Your task to perform on an android device: turn off data saver in the chrome app Image 0: 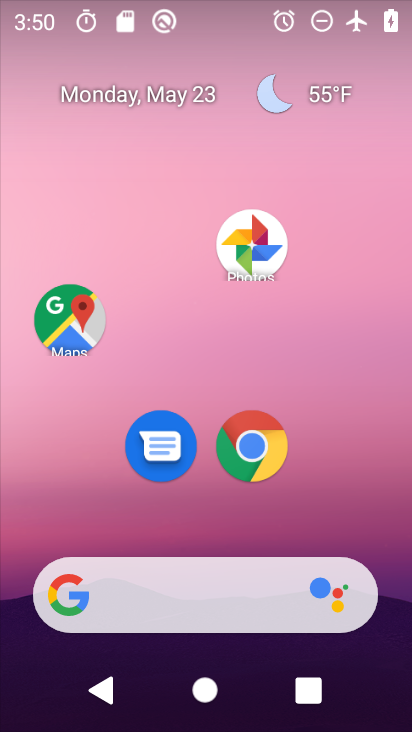
Step 0: click (263, 459)
Your task to perform on an android device: turn off data saver in the chrome app Image 1: 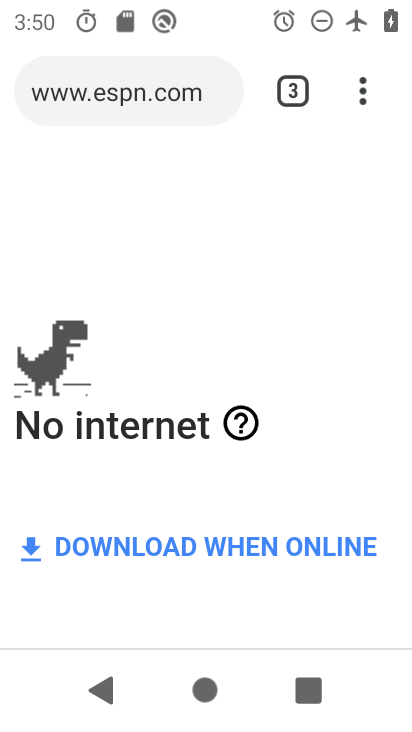
Step 1: click (356, 95)
Your task to perform on an android device: turn off data saver in the chrome app Image 2: 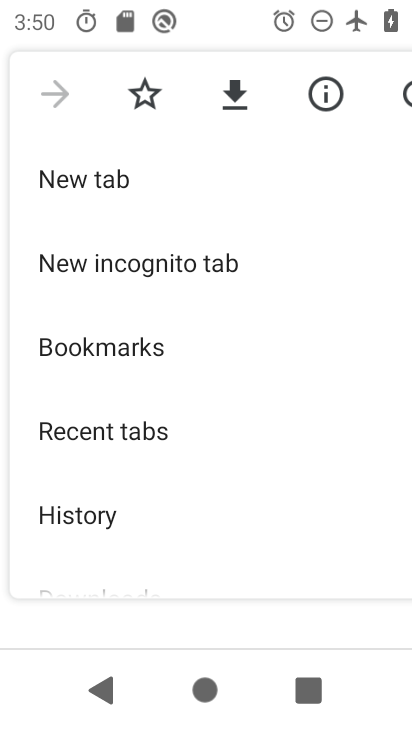
Step 2: drag from (185, 491) to (189, 217)
Your task to perform on an android device: turn off data saver in the chrome app Image 3: 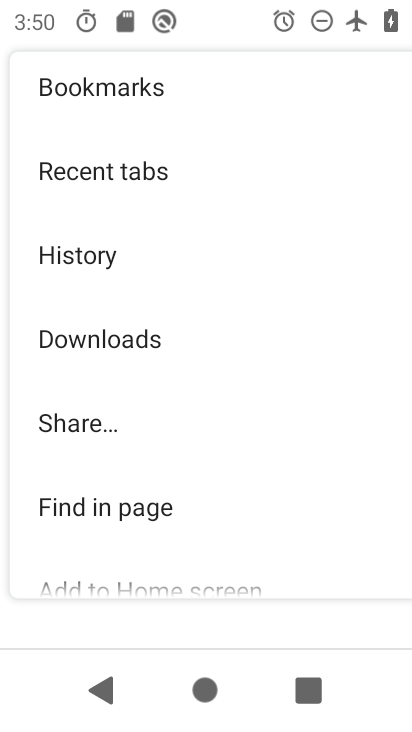
Step 3: drag from (154, 486) to (158, 232)
Your task to perform on an android device: turn off data saver in the chrome app Image 4: 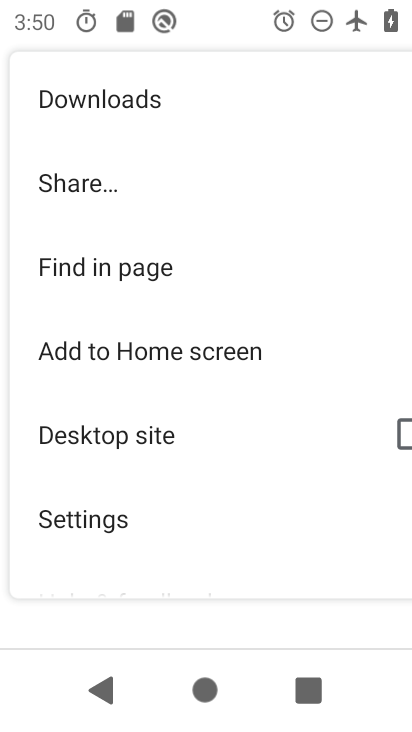
Step 4: click (127, 530)
Your task to perform on an android device: turn off data saver in the chrome app Image 5: 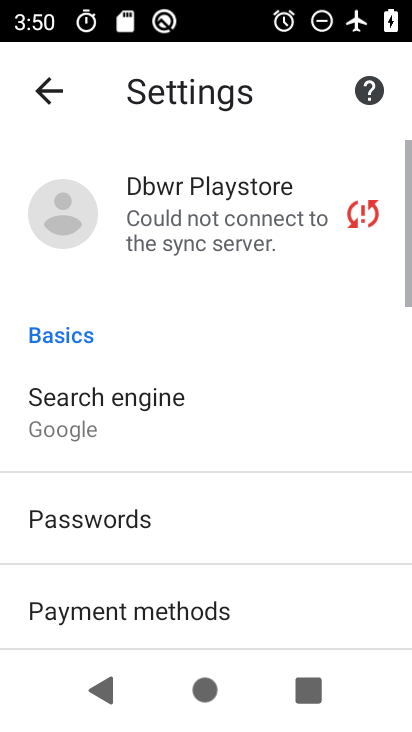
Step 5: drag from (157, 552) to (187, 208)
Your task to perform on an android device: turn off data saver in the chrome app Image 6: 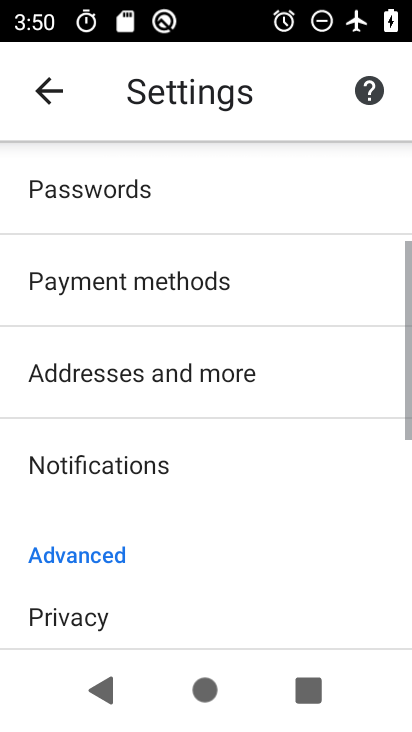
Step 6: drag from (218, 458) to (242, 204)
Your task to perform on an android device: turn off data saver in the chrome app Image 7: 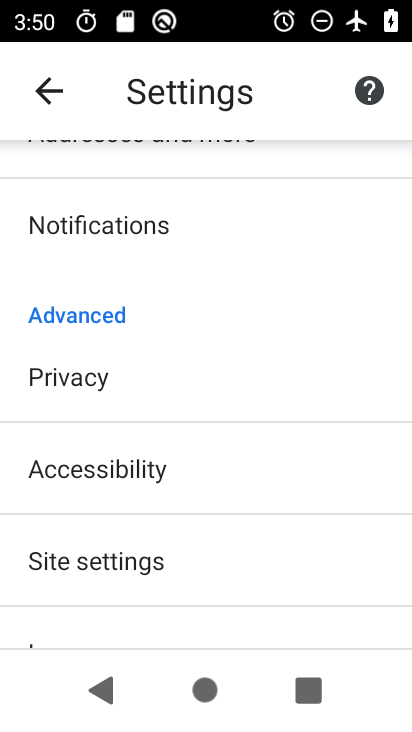
Step 7: drag from (207, 597) to (196, 319)
Your task to perform on an android device: turn off data saver in the chrome app Image 8: 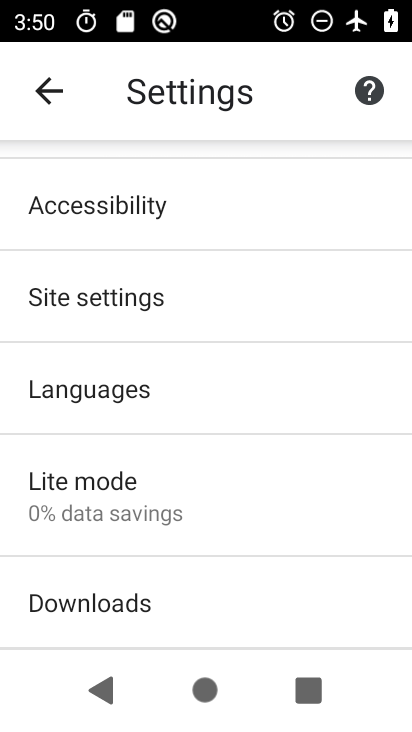
Step 8: click (196, 505)
Your task to perform on an android device: turn off data saver in the chrome app Image 9: 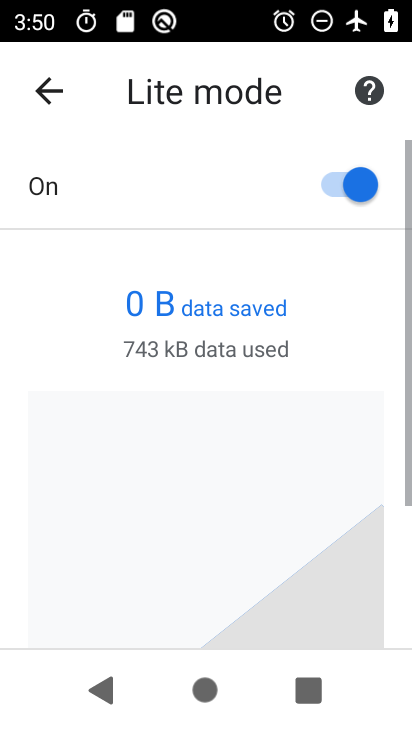
Step 9: click (339, 183)
Your task to perform on an android device: turn off data saver in the chrome app Image 10: 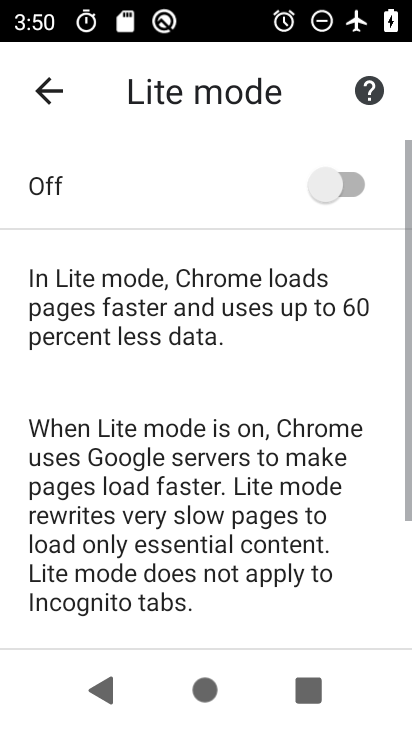
Step 10: task complete